Your task to perform on an android device: install app "File Manager" Image 0: 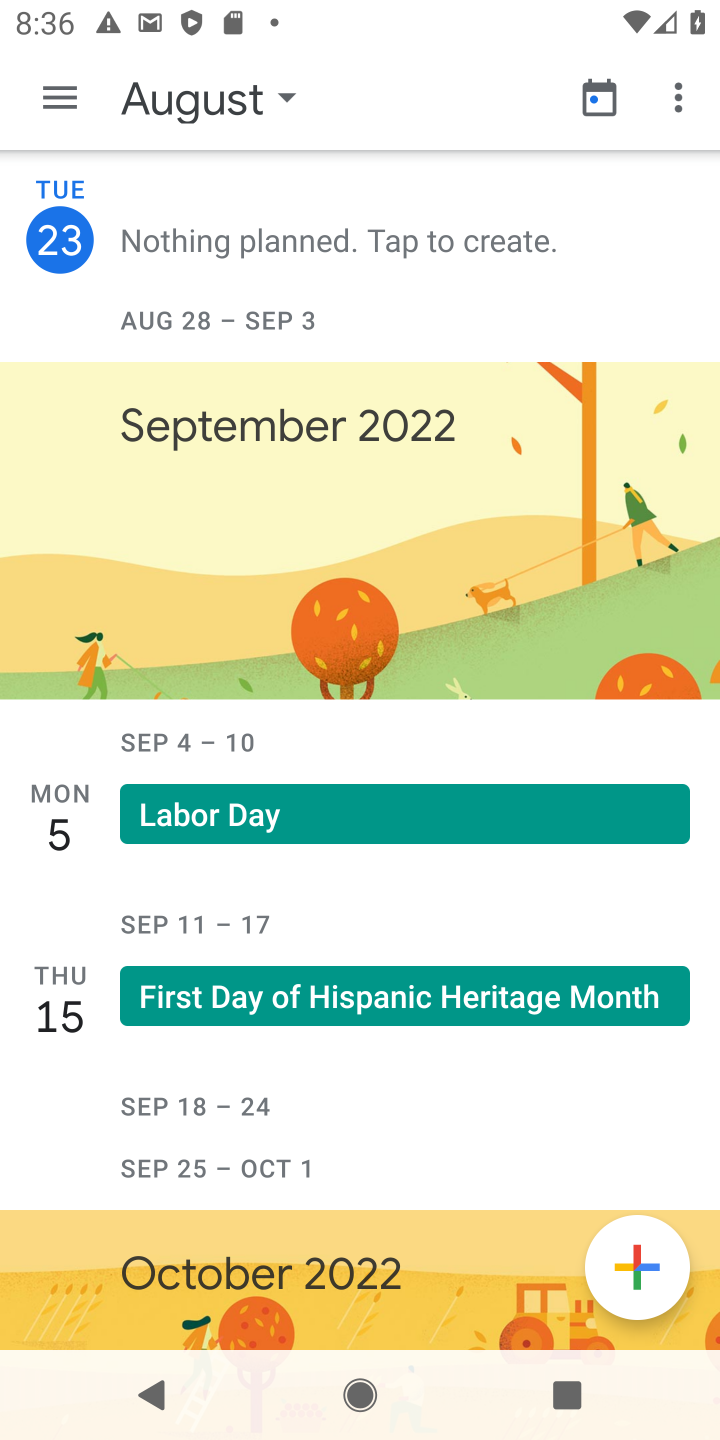
Step 0: press home button
Your task to perform on an android device: install app "File Manager" Image 1: 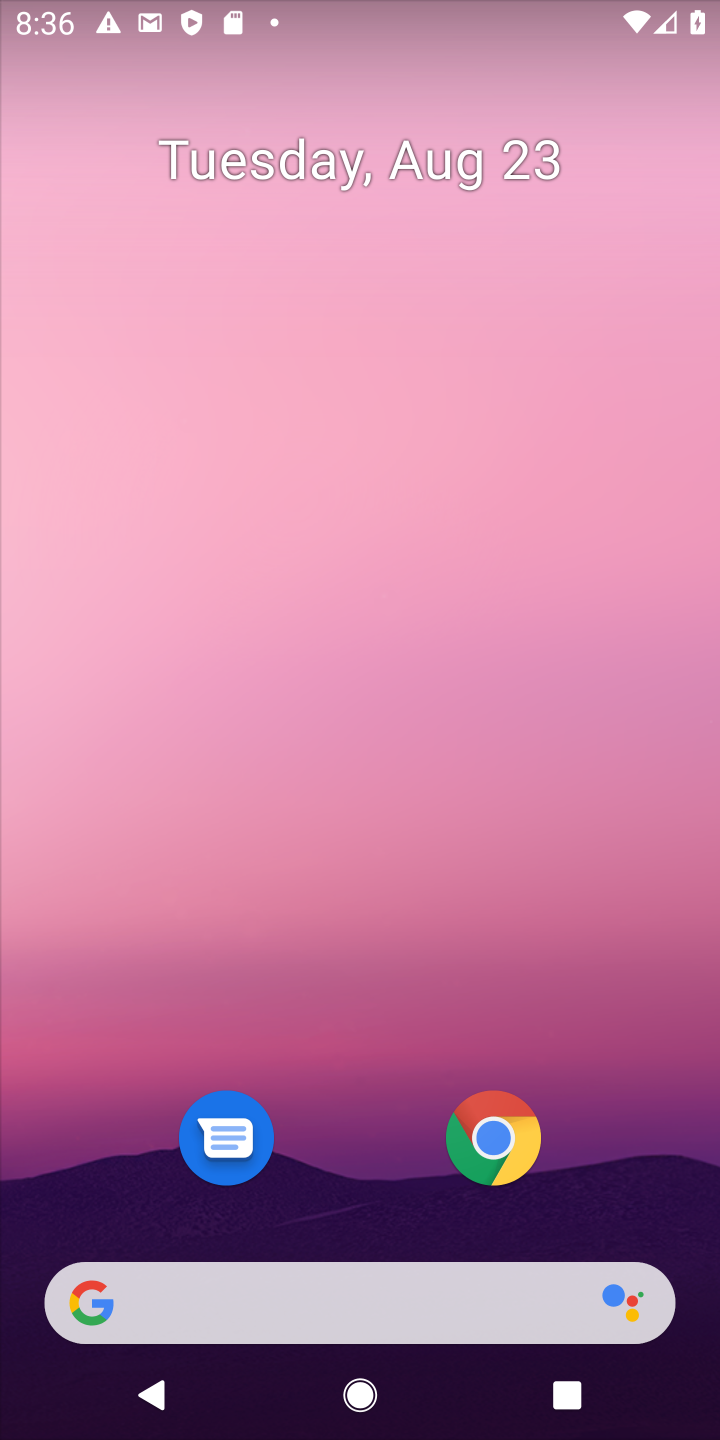
Step 1: drag from (630, 1189) to (644, 257)
Your task to perform on an android device: install app "File Manager" Image 2: 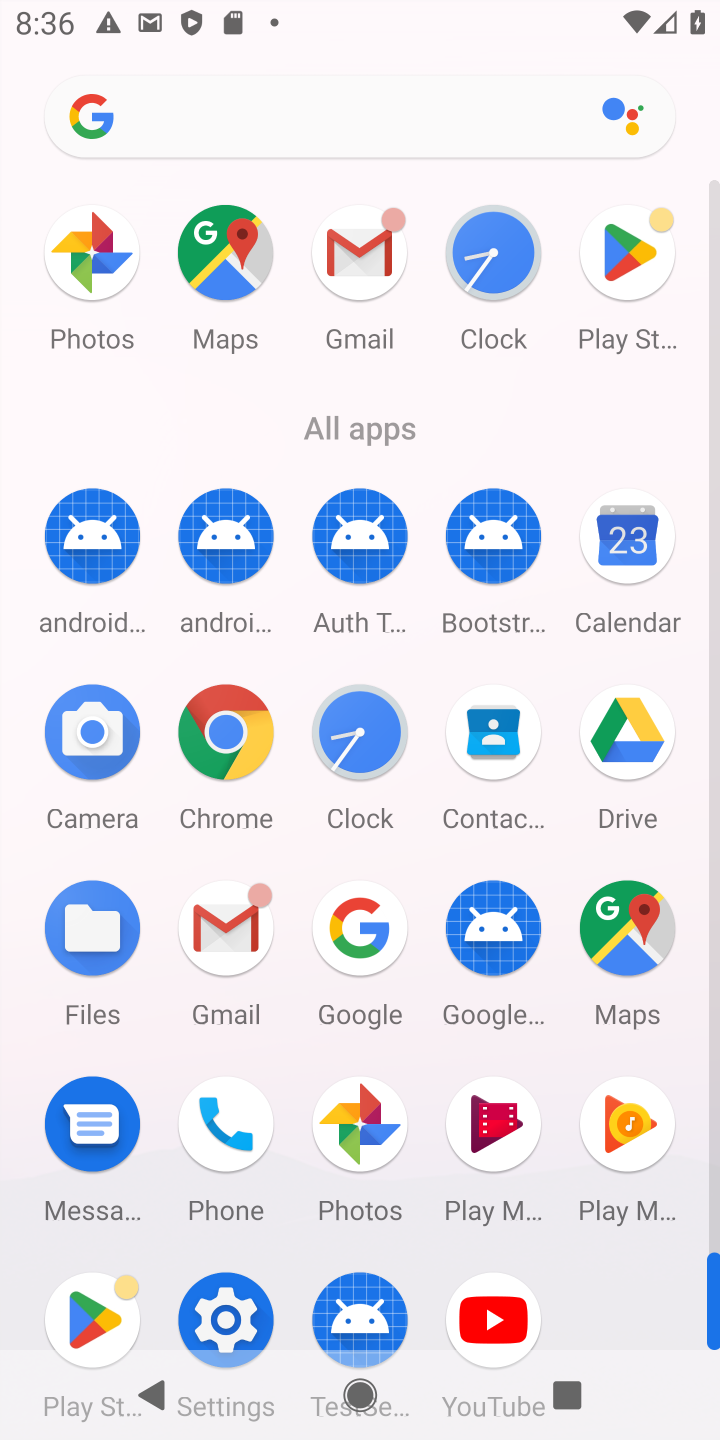
Step 2: click (631, 252)
Your task to perform on an android device: install app "File Manager" Image 3: 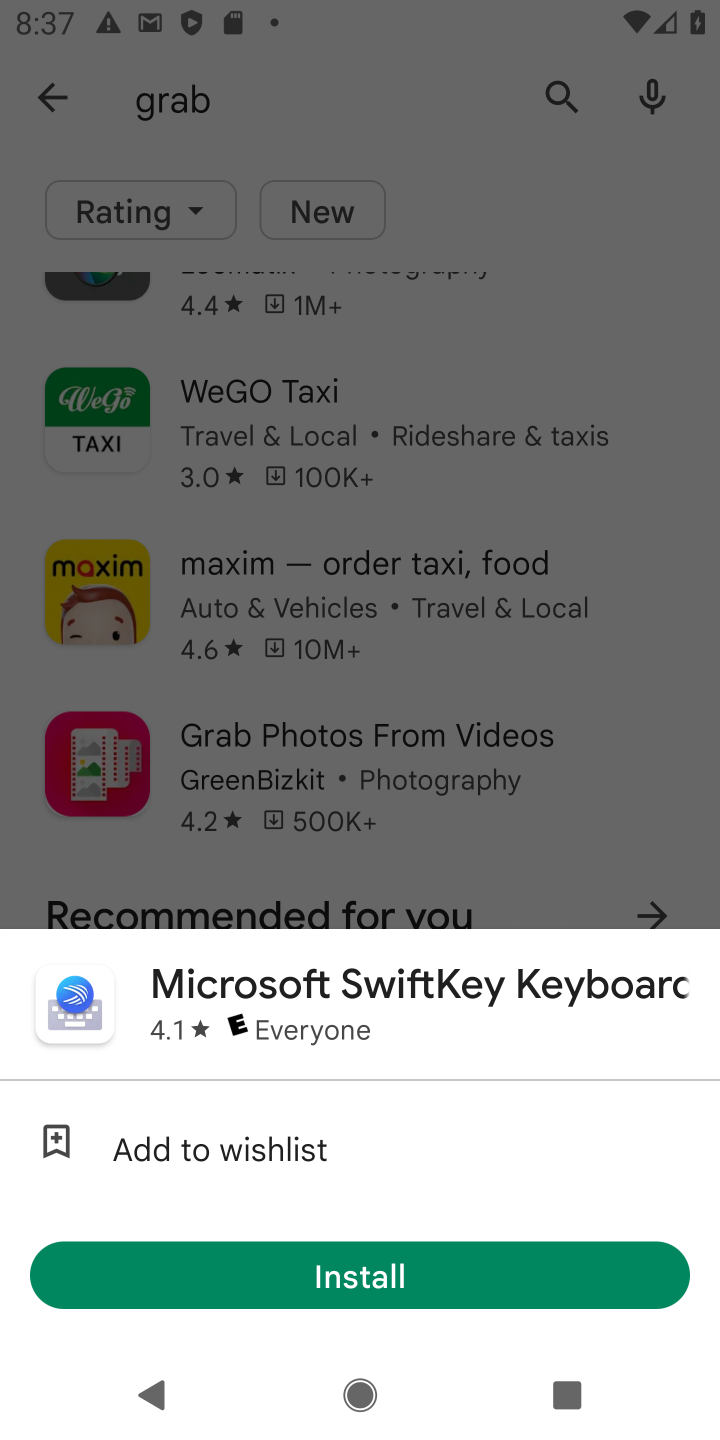
Step 3: press back button
Your task to perform on an android device: install app "File Manager" Image 4: 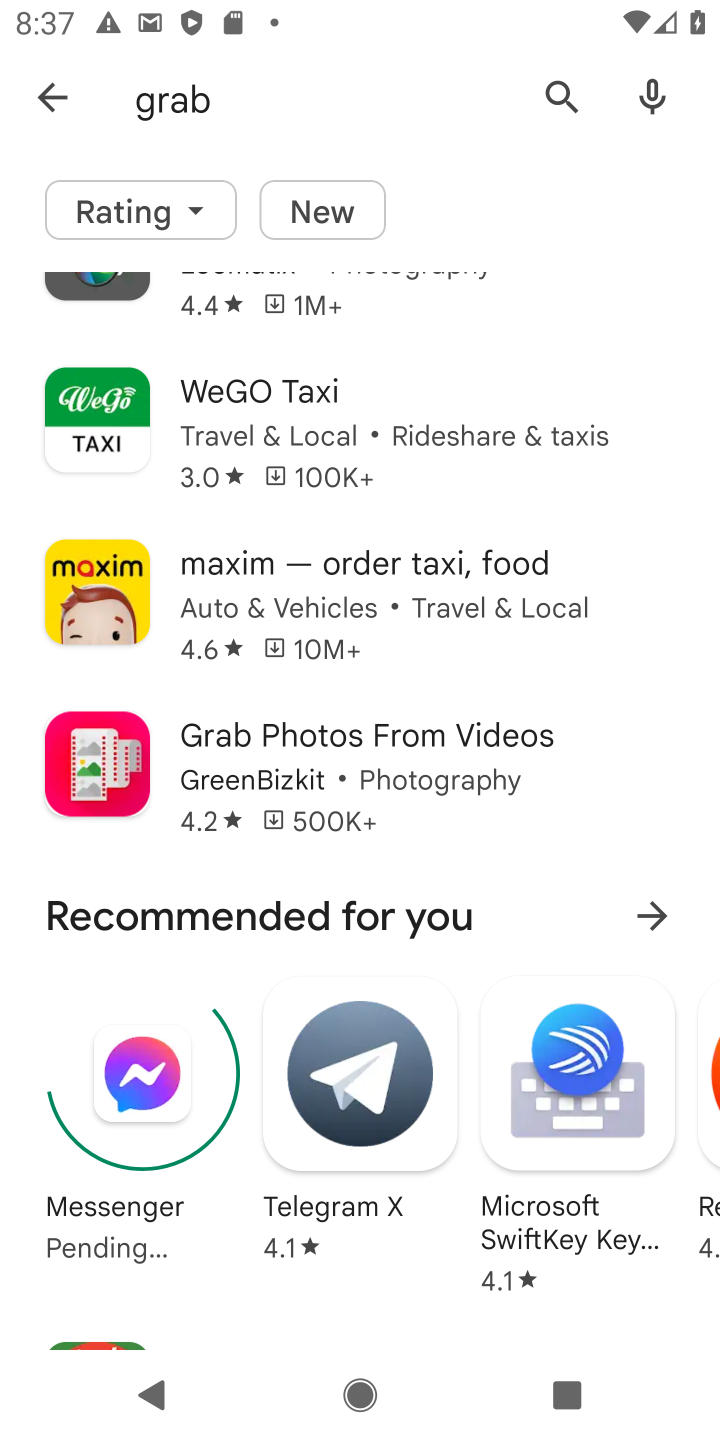
Step 4: press back button
Your task to perform on an android device: install app "File Manager" Image 5: 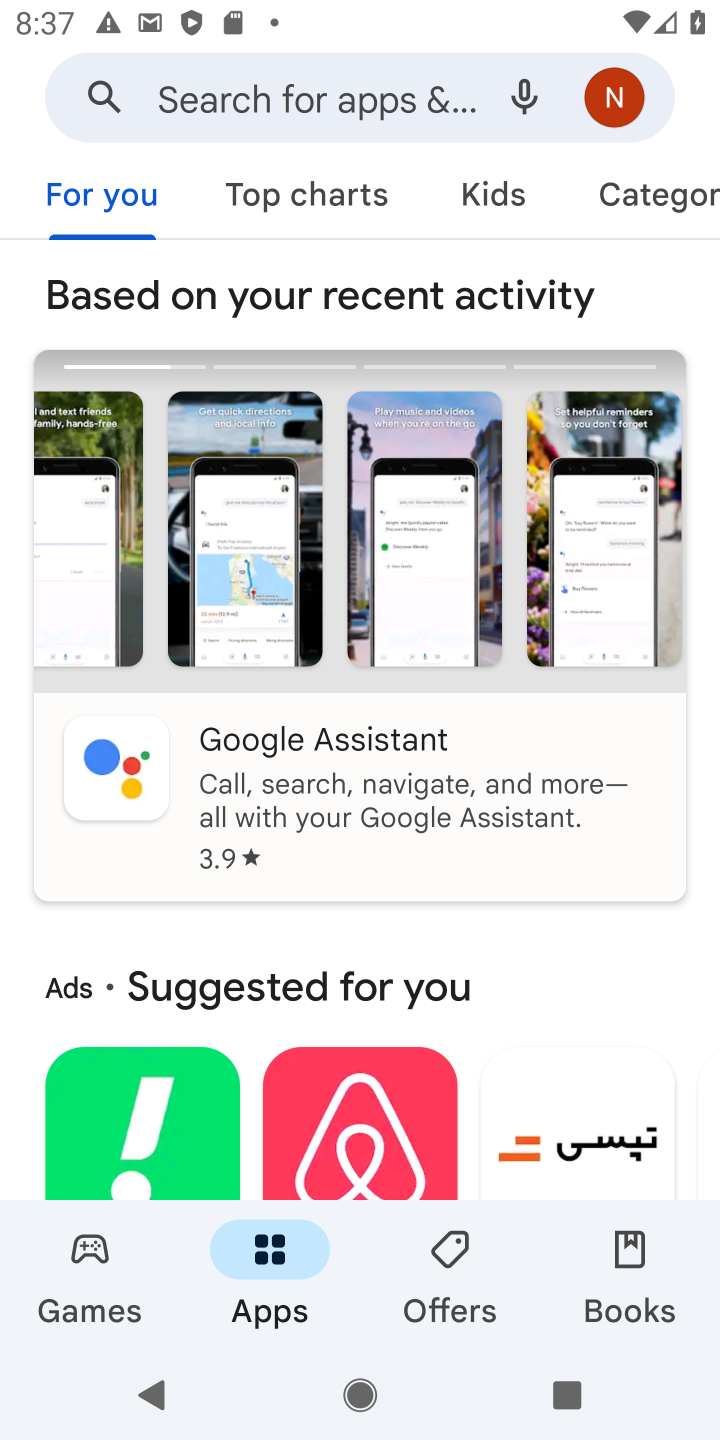
Step 5: click (327, 86)
Your task to perform on an android device: install app "File Manager" Image 6: 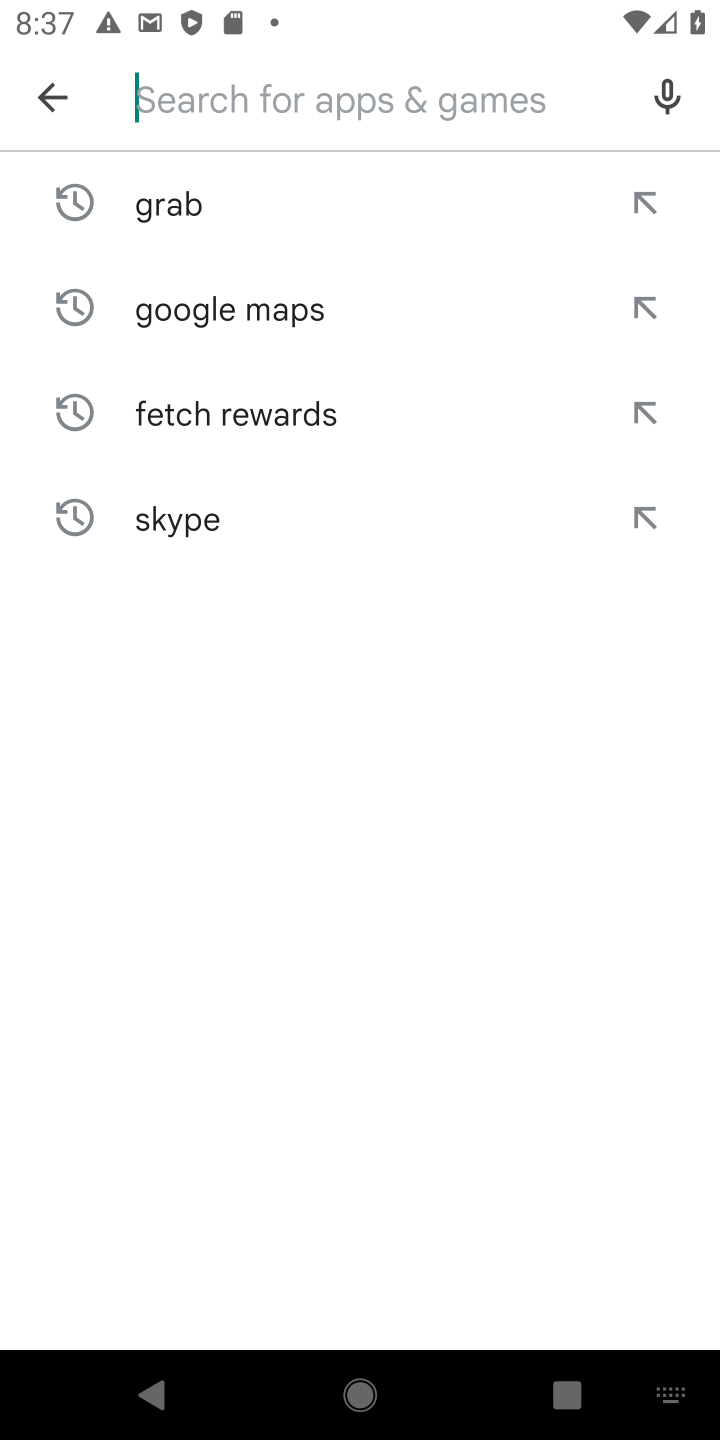
Step 6: type "File Manager"
Your task to perform on an android device: install app "File Manager" Image 7: 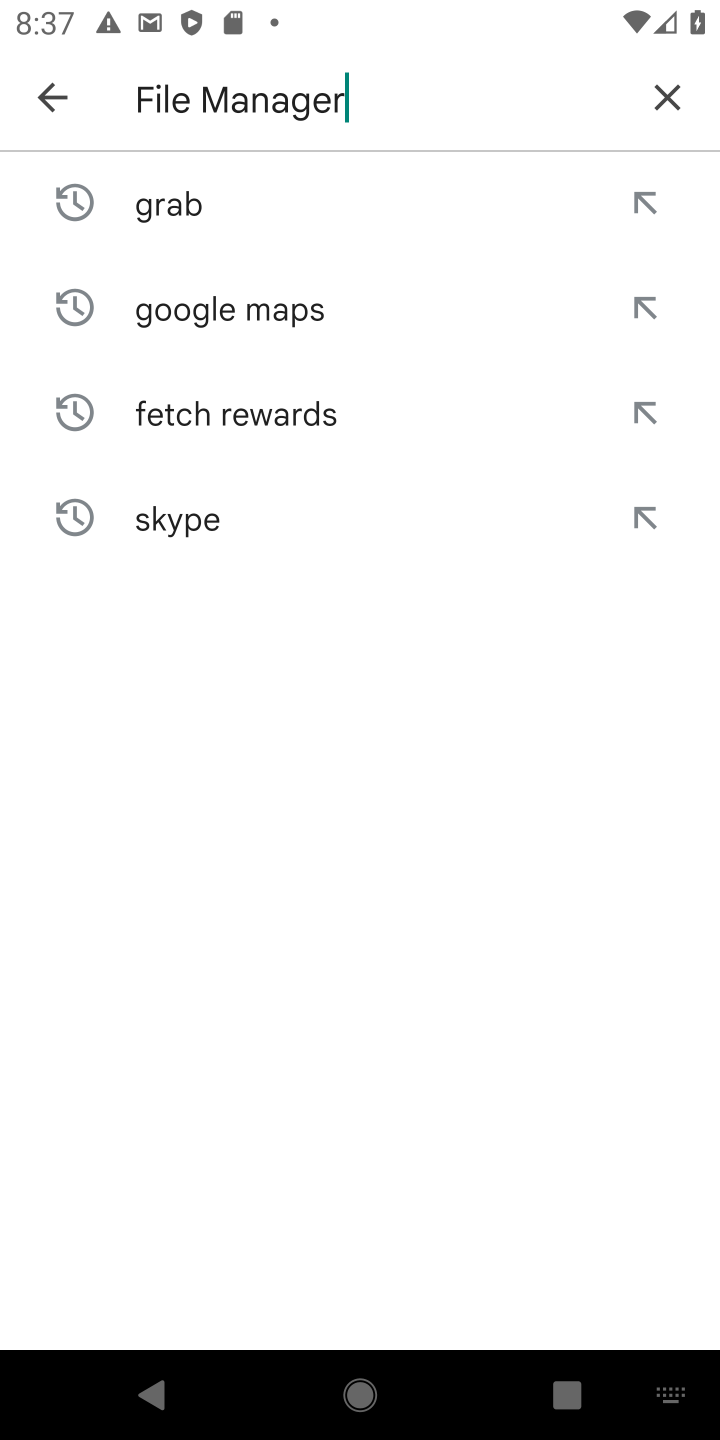
Step 7: press enter
Your task to perform on an android device: install app "File Manager" Image 8: 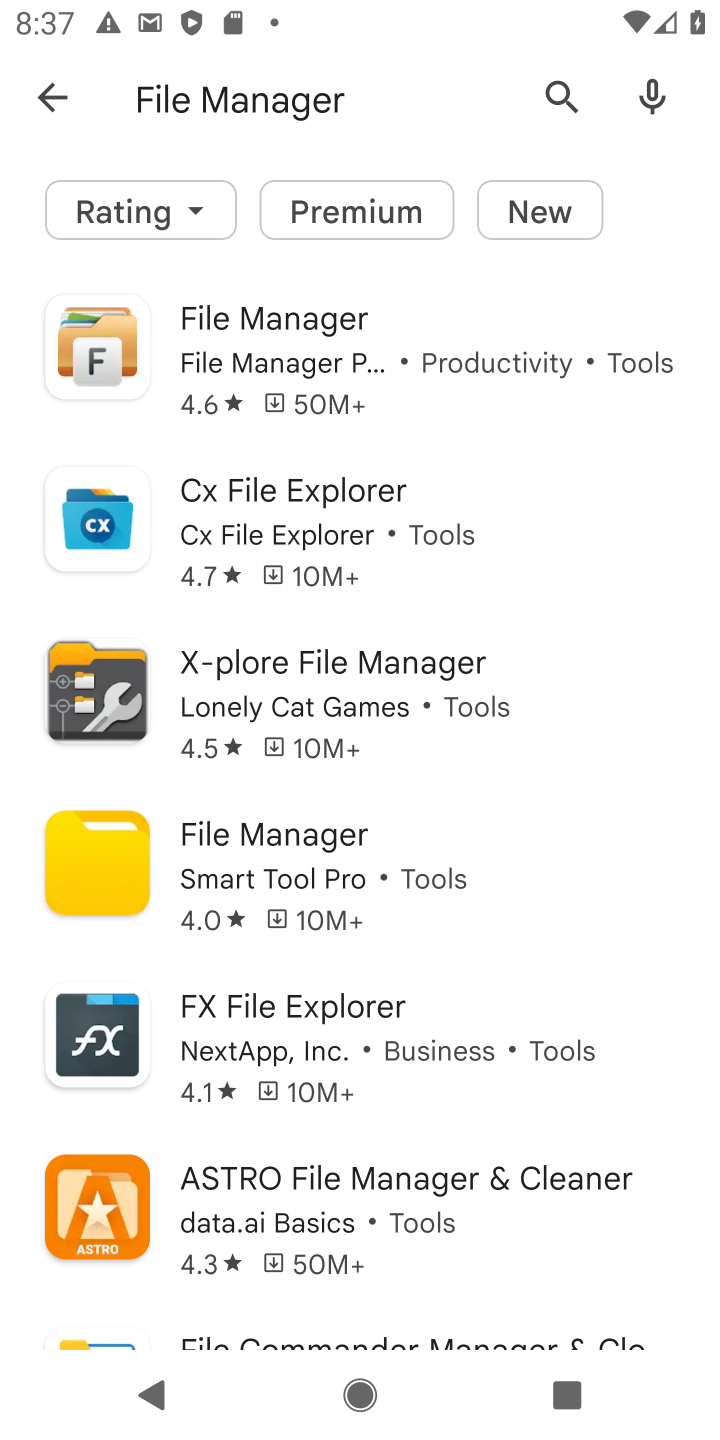
Step 8: task complete